Your task to perform on an android device: turn vacation reply on in the gmail app Image 0: 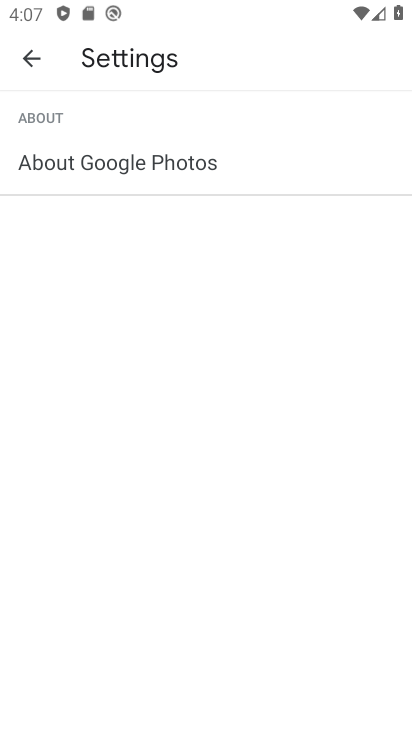
Step 0: press back button
Your task to perform on an android device: turn vacation reply on in the gmail app Image 1: 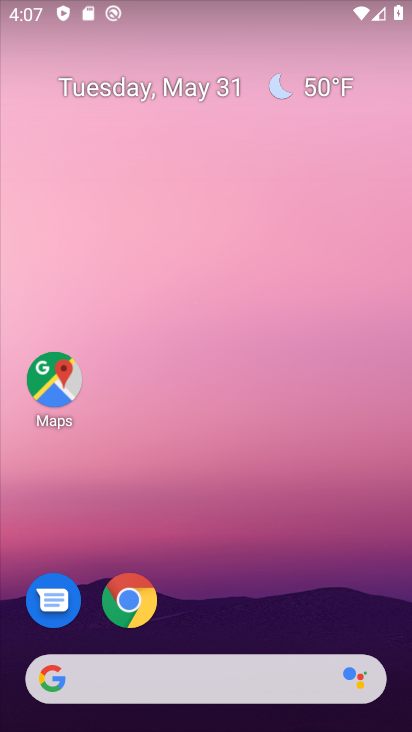
Step 1: drag from (248, 622) to (232, 113)
Your task to perform on an android device: turn vacation reply on in the gmail app Image 2: 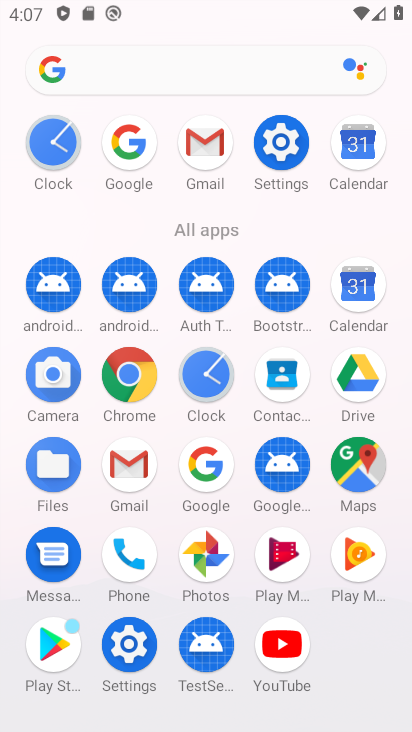
Step 2: click (203, 143)
Your task to perform on an android device: turn vacation reply on in the gmail app Image 3: 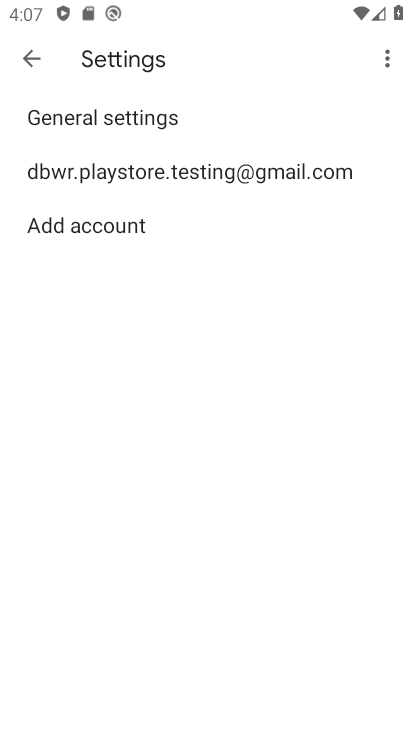
Step 3: click (173, 178)
Your task to perform on an android device: turn vacation reply on in the gmail app Image 4: 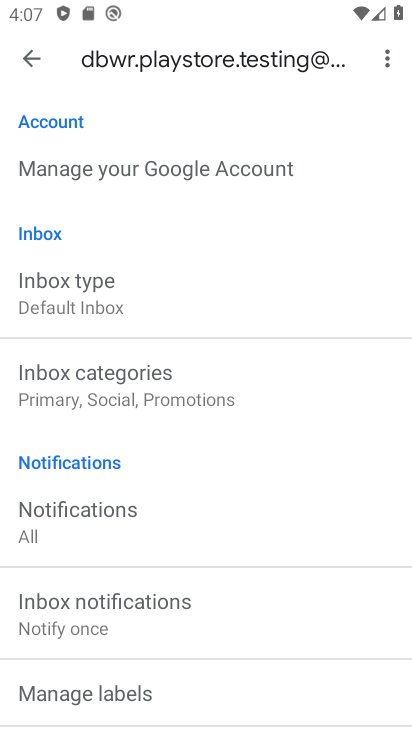
Step 4: drag from (86, 436) to (225, 288)
Your task to perform on an android device: turn vacation reply on in the gmail app Image 5: 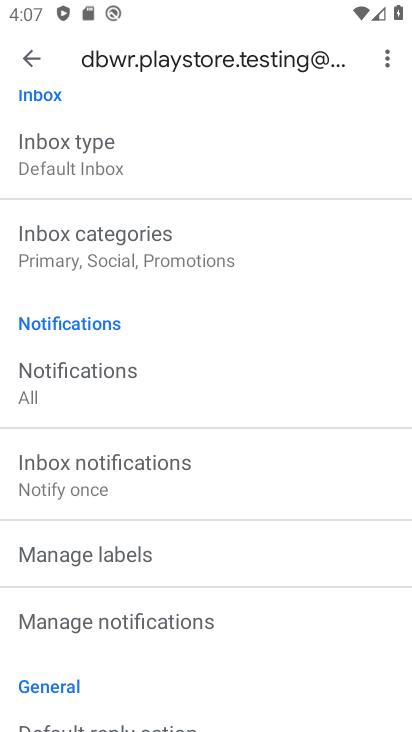
Step 5: drag from (131, 640) to (200, 523)
Your task to perform on an android device: turn vacation reply on in the gmail app Image 6: 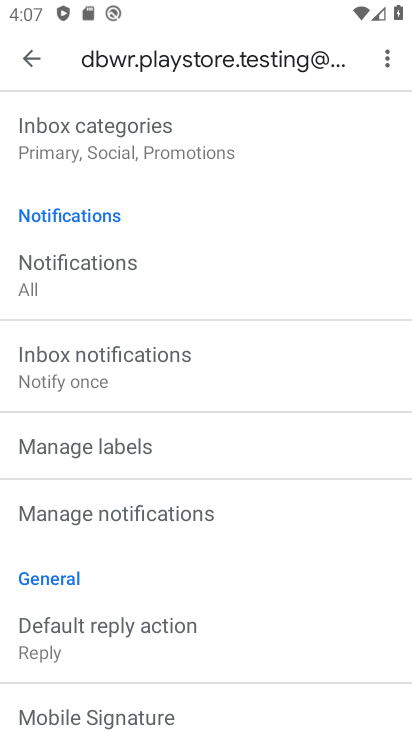
Step 6: drag from (142, 598) to (224, 504)
Your task to perform on an android device: turn vacation reply on in the gmail app Image 7: 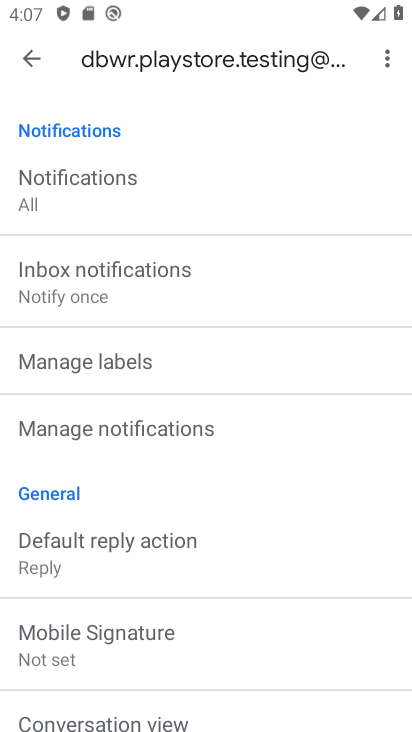
Step 7: drag from (94, 673) to (140, 577)
Your task to perform on an android device: turn vacation reply on in the gmail app Image 8: 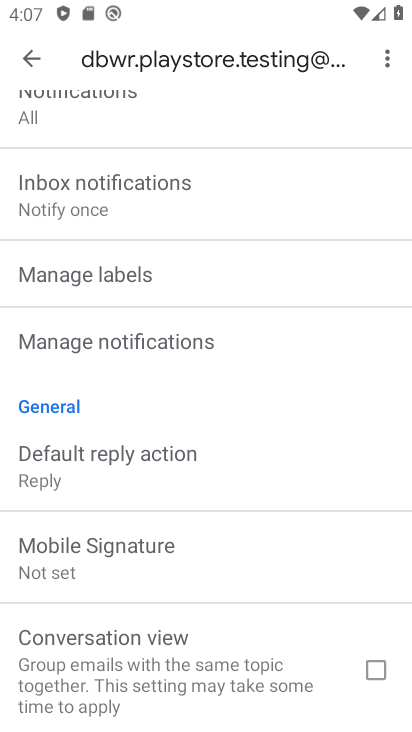
Step 8: drag from (132, 683) to (211, 574)
Your task to perform on an android device: turn vacation reply on in the gmail app Image 9: 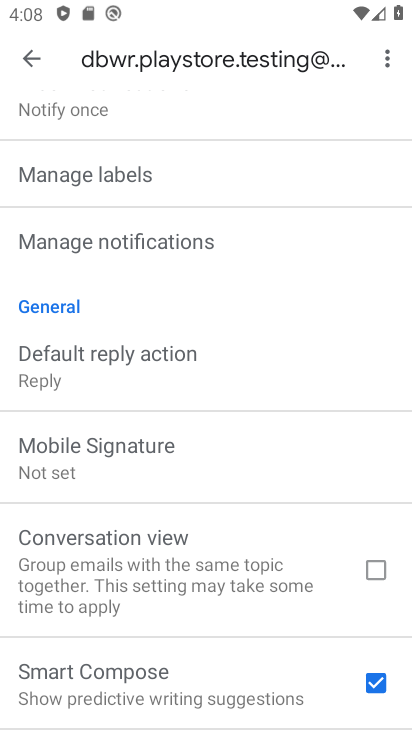
Step 9: drag from (149, 660) to (200, 533)
Your task to perform on an android device: turn vacation reply on in the gmail app Image 10: 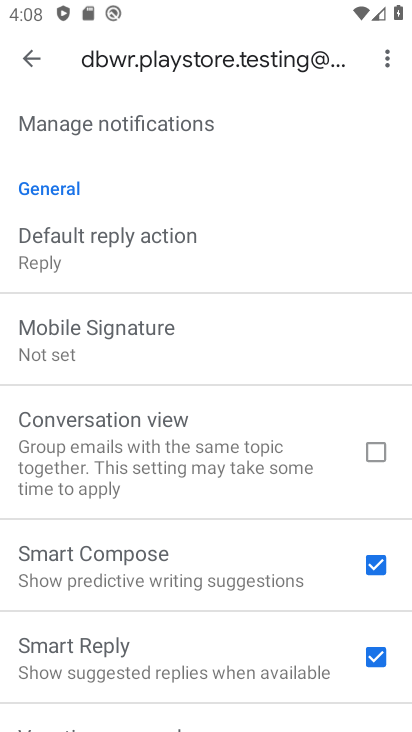
Step 10: drag from (153, 637) to (203, 537)
Your task to perform on an android device: turn vacation reply on in the gmail app Image 11: 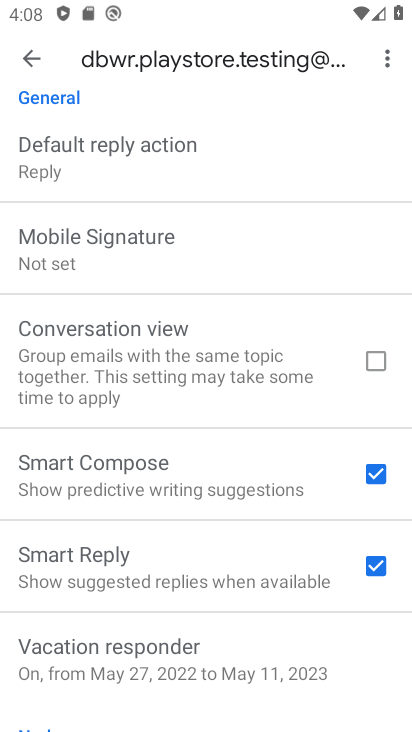
Step 11: click (143, 653)
Your task to perform on an android device: turn vacation reply on in the gmail app Image 12: 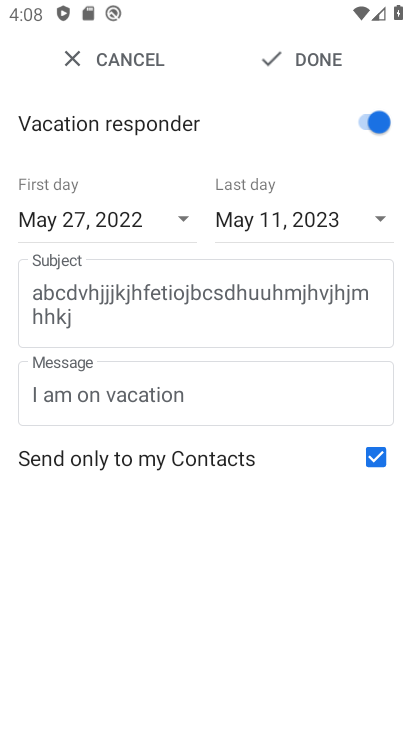
Step 12: task complete